Your task to perform on an android device: Go to settings Image 0: 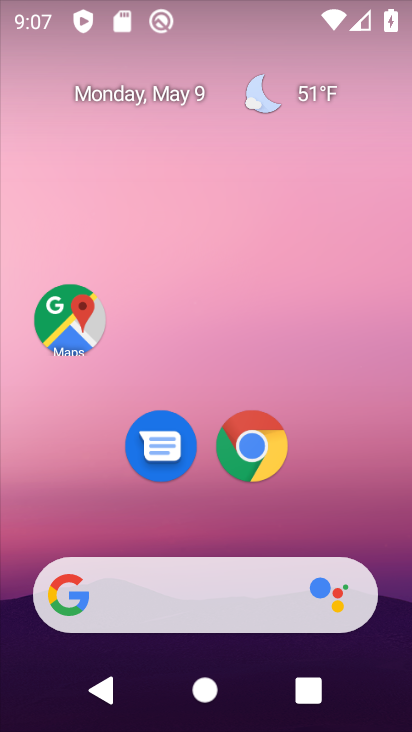
Step 0: drag from (331, 481) to (298, 0)
Your task to perform on an android device: Go to settings Image 1: 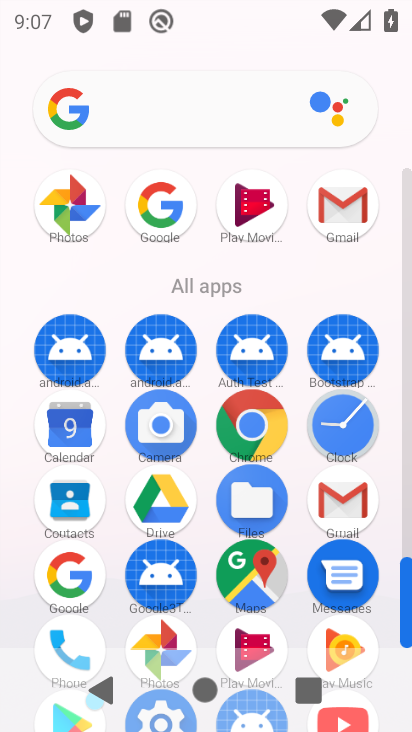
Step 1: drag from (288, 596) to (292, 214)
Your task to perform on an android device: Go to settings Image 2: 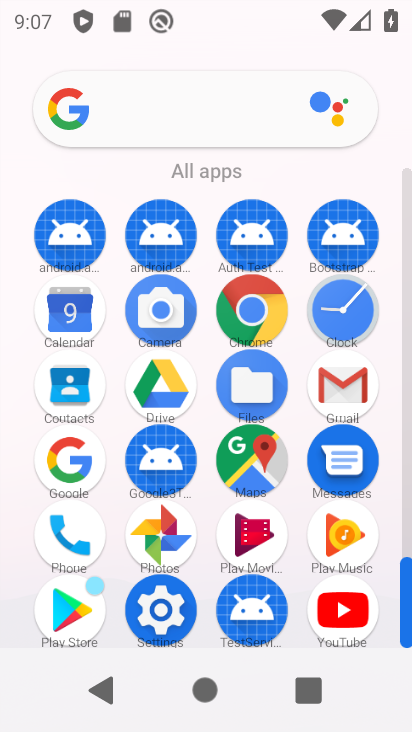
Step 2: click (168, 594)
Your task to perform on an android device: Go to settings Image 3: 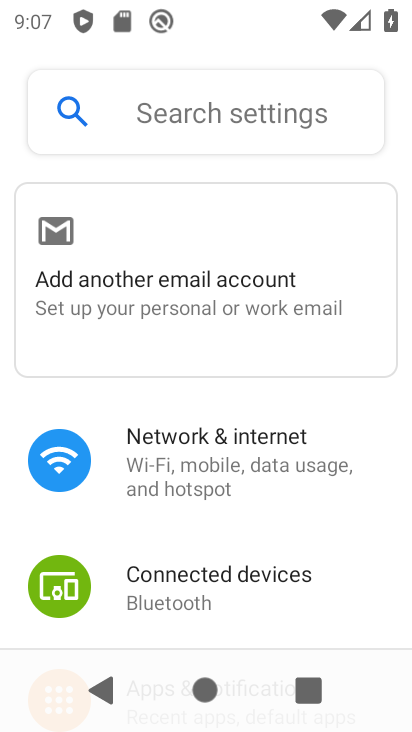
Step 3: task complete